Your task to perform on an android device: Open calendar and show me the third week of next month Image 0: 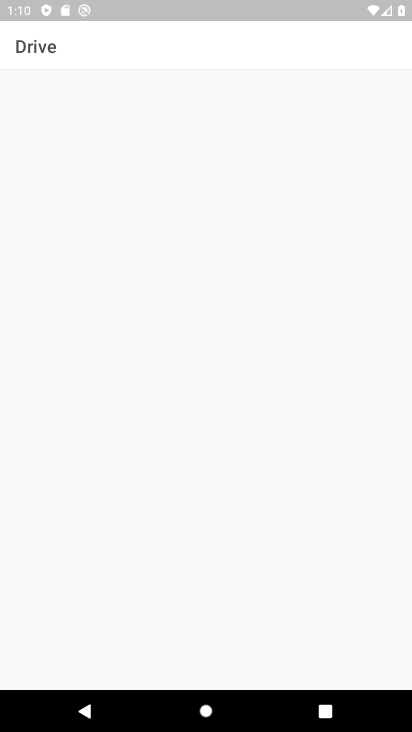
Step 0: press home button
Your task to perform on an android device: Open calendar and show me the third week of next month Image 1: 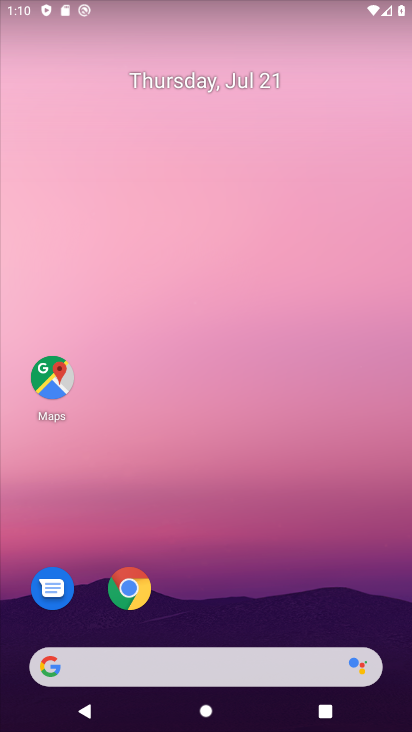
Step 1: drag from (262, 636) to (240, 112)
Your task to perform on an android device: Open calendar and show me the third week of next month Image 2: 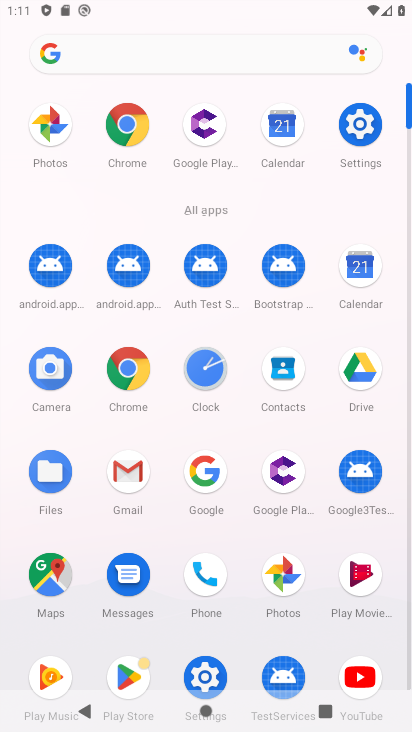
Step 2: click (363, 278)
Your task to perform on an android device: Open calendar and show me the third week of next month Image 3: 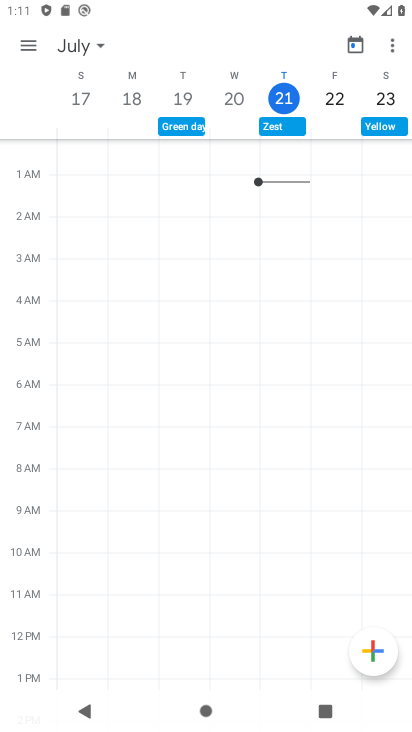
Step 3: task complete